Your task to perform on an android device: Show me the alarms in the clock app Image 0: 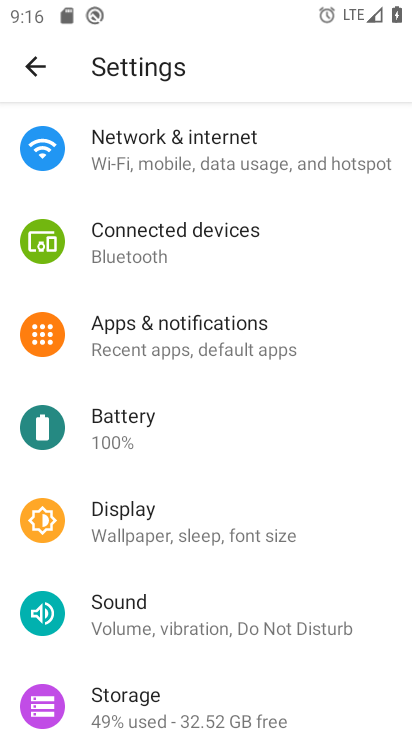
Step 0: press home button
Your task to perform on an android device: Show me the alarms in the clock app Image 1: 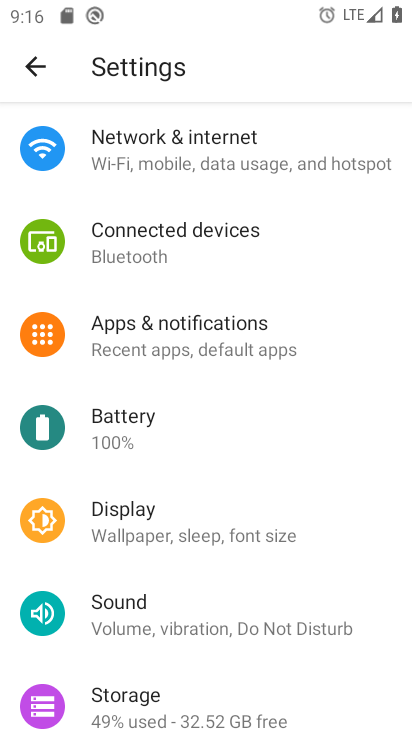
Step 1: press home button
Your task to perform on an android device: Show me the alarms in the clock app Image 2: 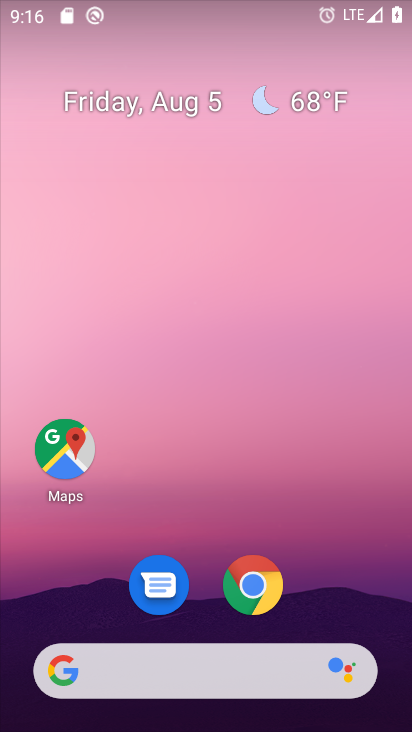
Step 2: drag from (328, 575) to (356, 61)
Your task to perform on an android device: Show me the alarms in the clock app Image 3: 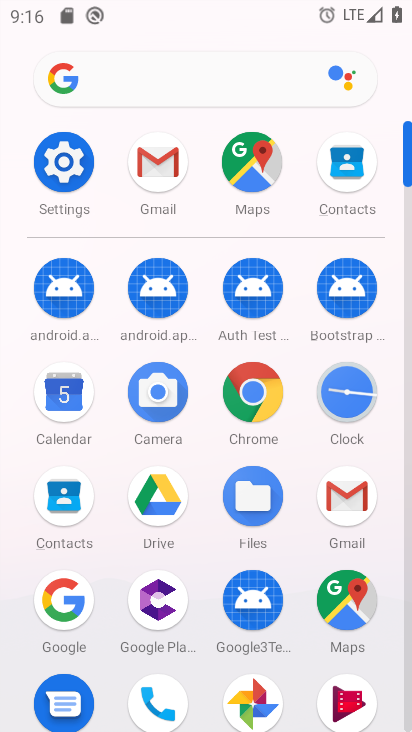
Step 3: click (346, 408)
Your task to perform on an android device: Show me the alarms in the clock app Image 4: 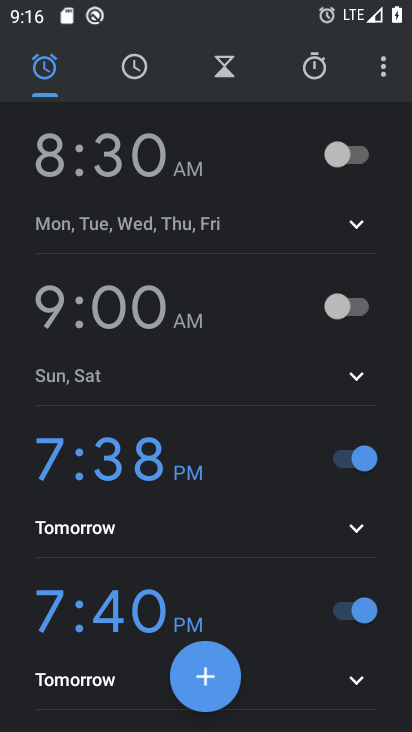
Step 4: click (135, 67)
Your task to perform on an android device: Show me the alarms in the clock app Image 5: 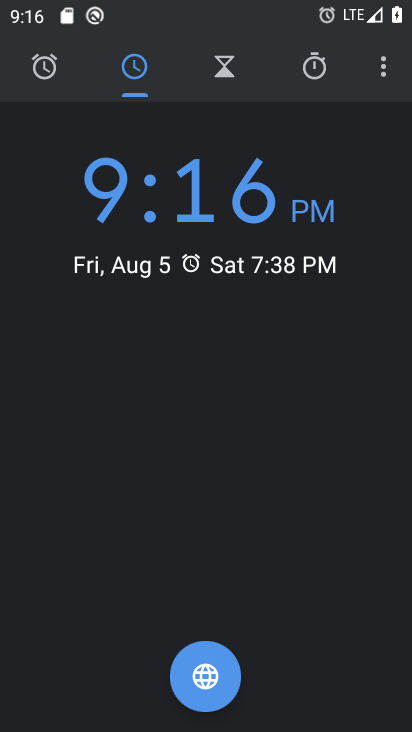
Step 5: click (54, 66)
Your task to perform on an android device: Show me the alarms in the clock app Image 6: 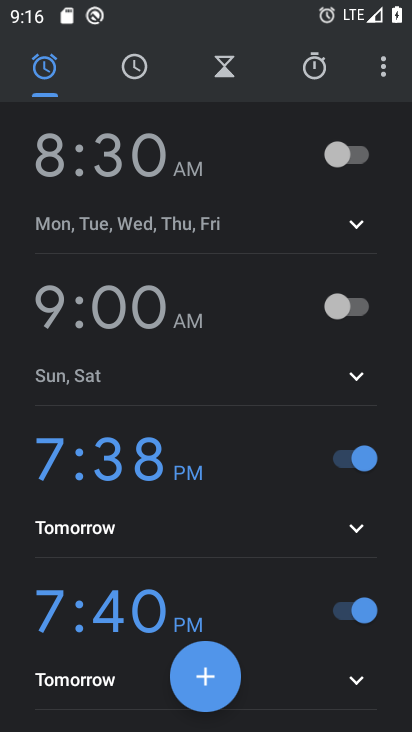
Step 6: task complete